Your task to perform on an android device: open a new tab in the chrome app Image 0: 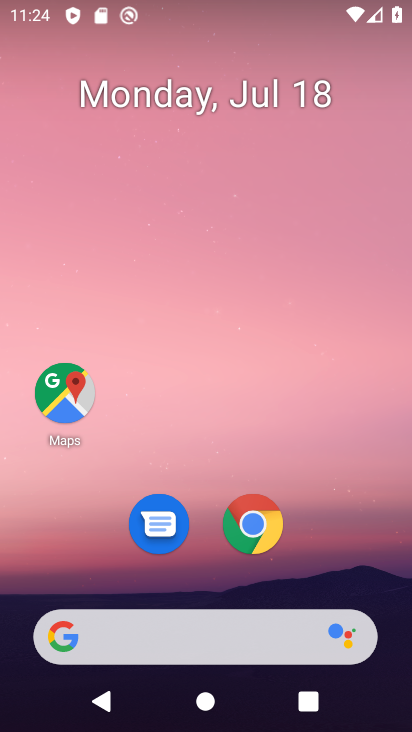
Step 0: click (264, 529)
Your task to perform on an android device: open a new tab in the chrome app Image 1: 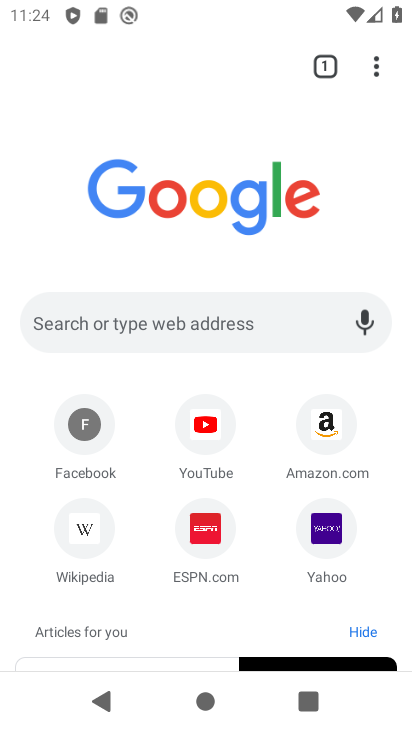
Step 1: click (371, 70)
Your task to perform on an android device: open a new tab in the chrome app Image 2: 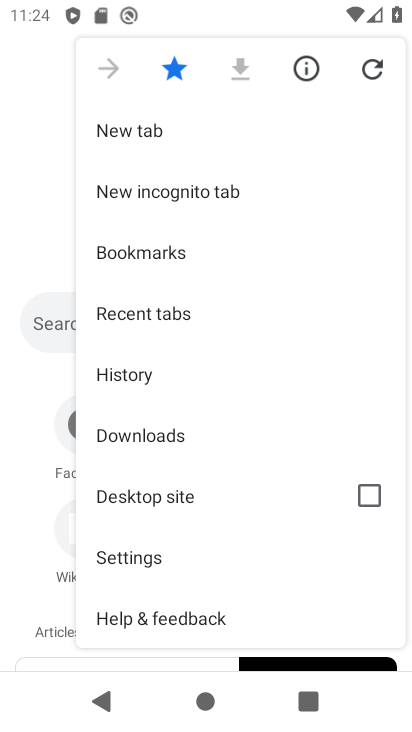
Step 2: click (254, 132)
Your task to perform on an android device: open a new tab in the chrome app Image 3: 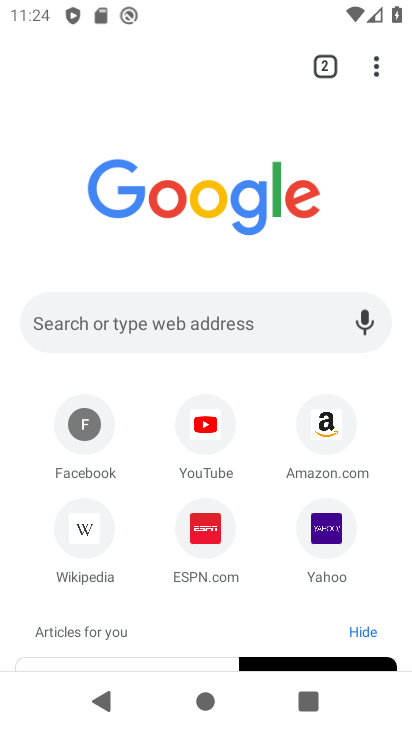
Step 3: task complete